Your task to perform on an android device: Open the phone app and click the voicemail tab. Image 0: 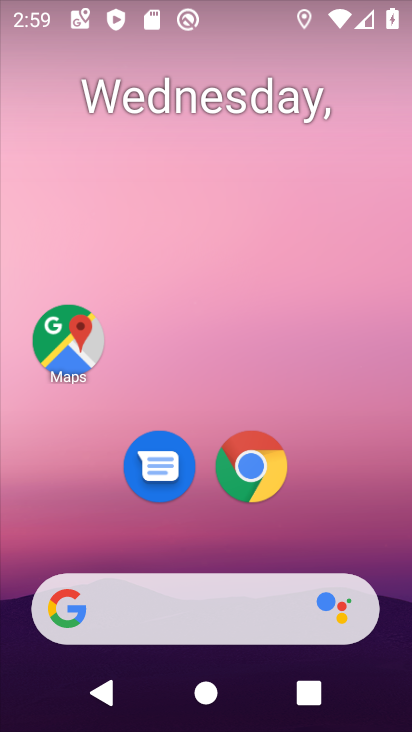
Step 0: drag from (179, 569) to (90, 69)
Your task to perform on an android device: Open the phone app and click the voicemail tab. Image 1: 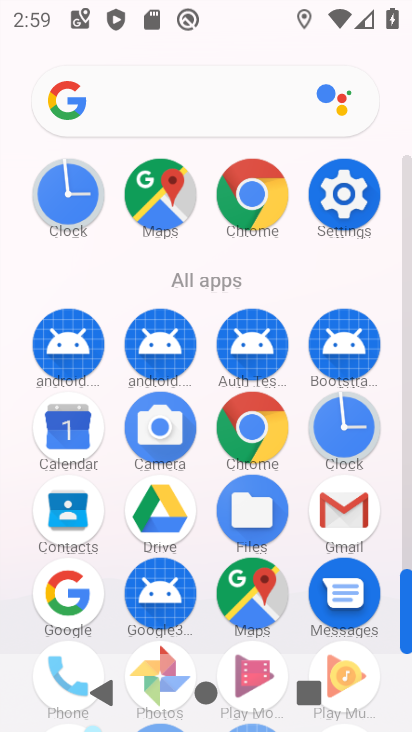
Step 1: click (74, 649)
Your task to perform on an android device: Open the phone app and click the voicemail tab. Image 2: 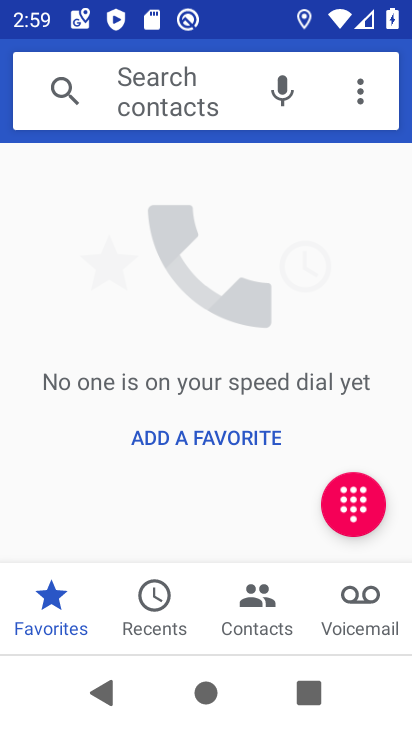
Step 2: click (357, 616)
Your task to perform on an android device: Open the phone app and click the voicemail tab. Image 3: 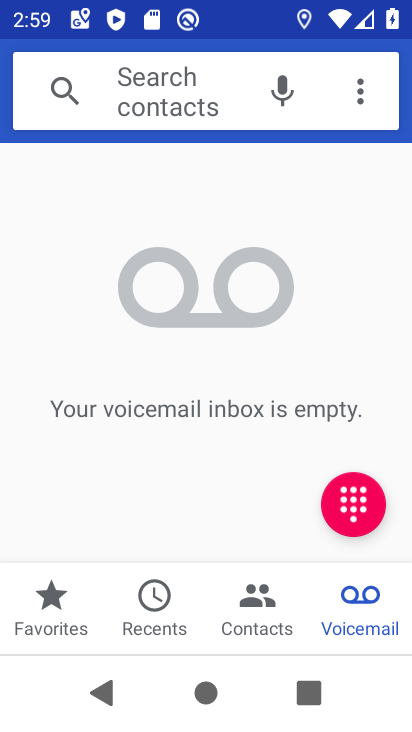
Step 3: task complete